Your task to perform on an android device: search for starred emails in the gmail app Image 0: 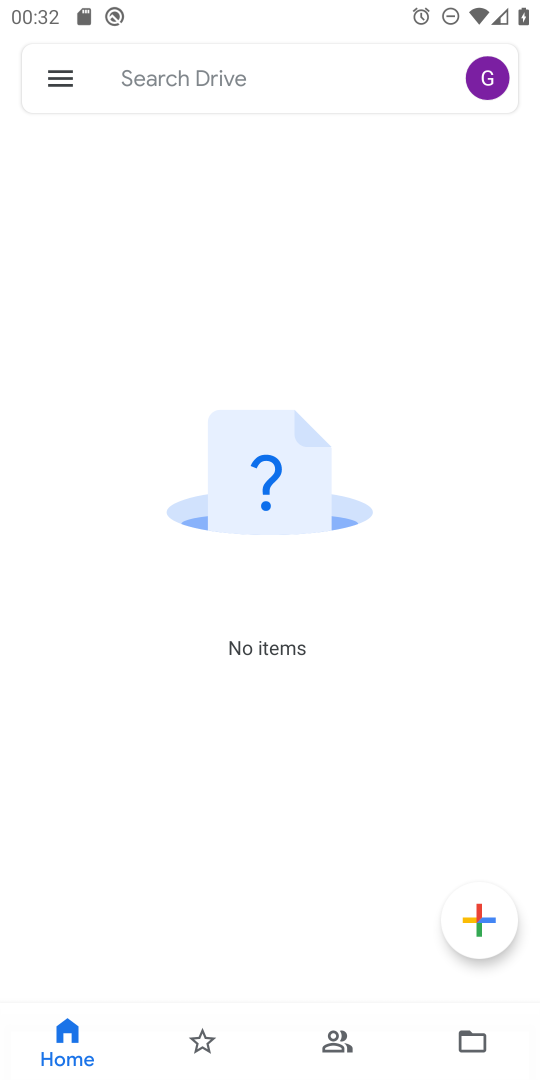
Step 0: press home button
Your task to perform on an android device: search for starred emails in the gmail app Image 1: 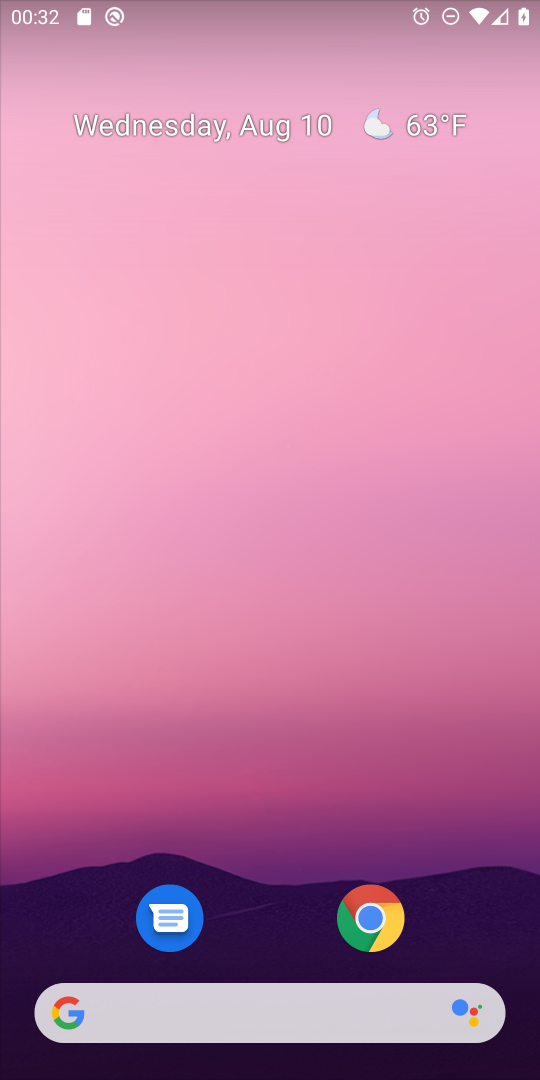
Step 1: drag from (276, 941) to (266, 289)
Your task to perform on an android device: search for starred emails in the gmail app Image 2: 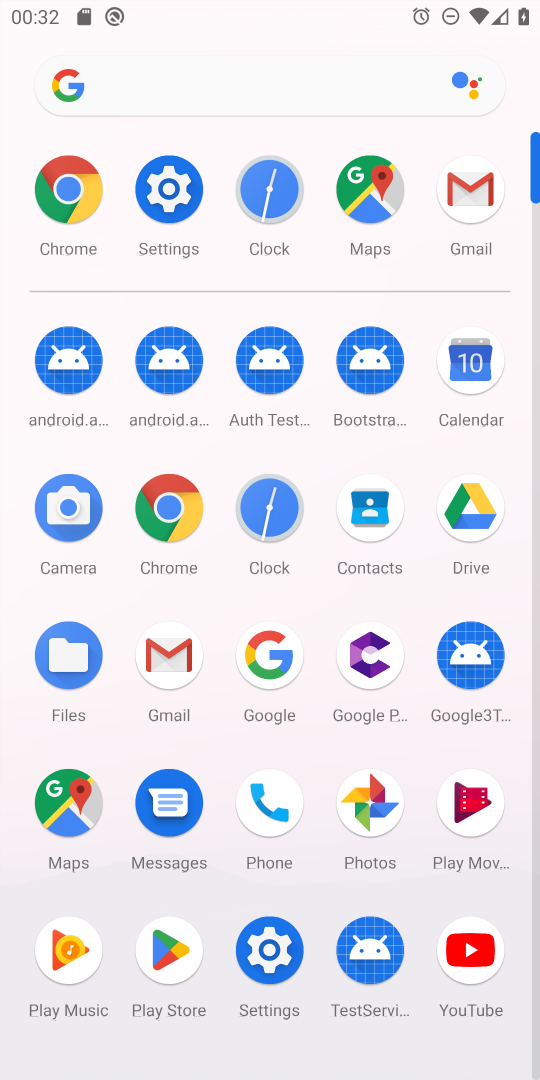
Step 2: click (174, 658)
Your task to perform on an android device: search for starred emails in the gmail app Image 3: 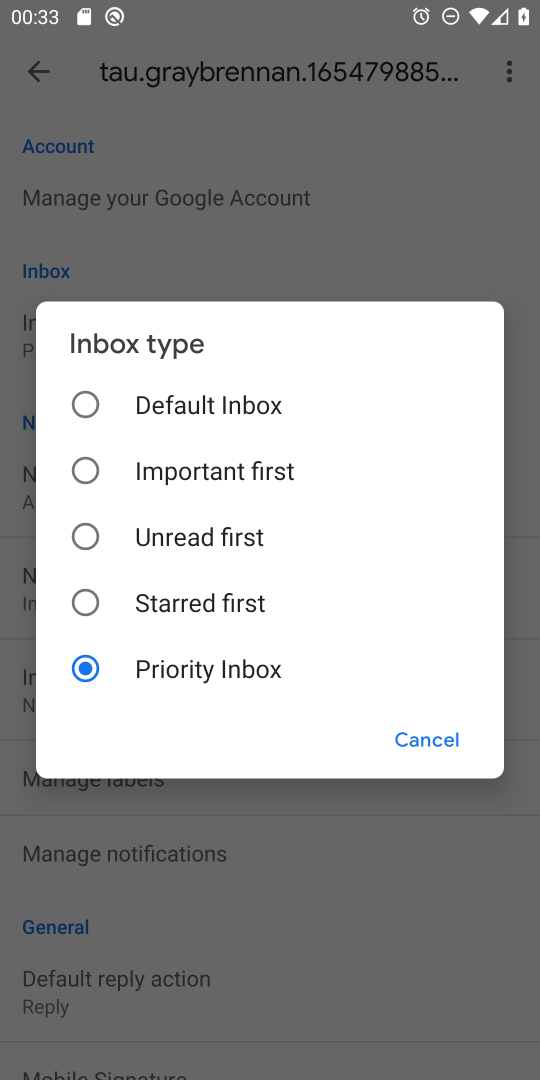
Step 3: click (425, 731)
Your task to perform on an android device: search for starred emails in the gmail app Image 4: 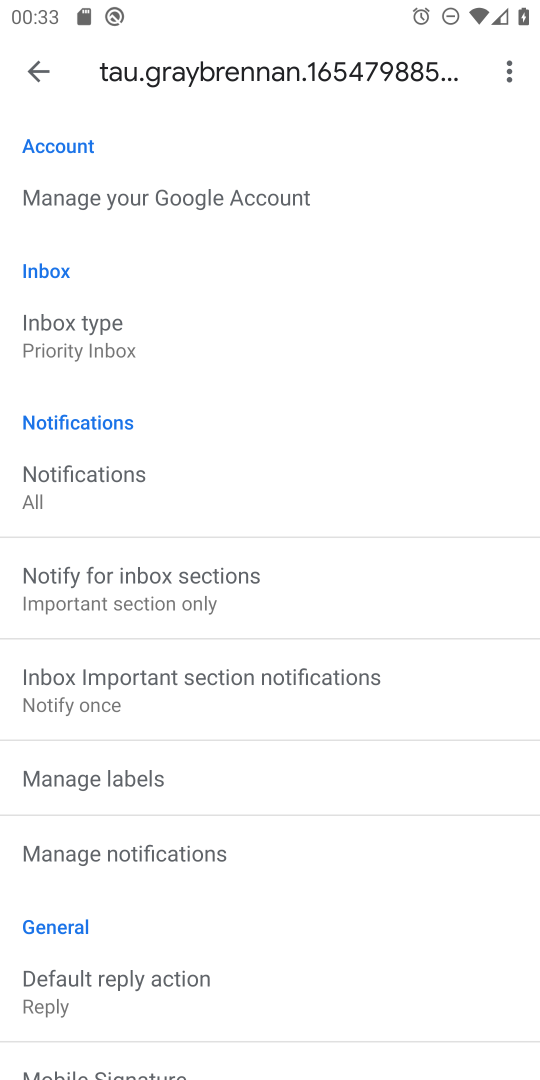
Step 4: click (46, 75)
Your task to perform on an android device: search for starred emails in the gmail app Image 5: 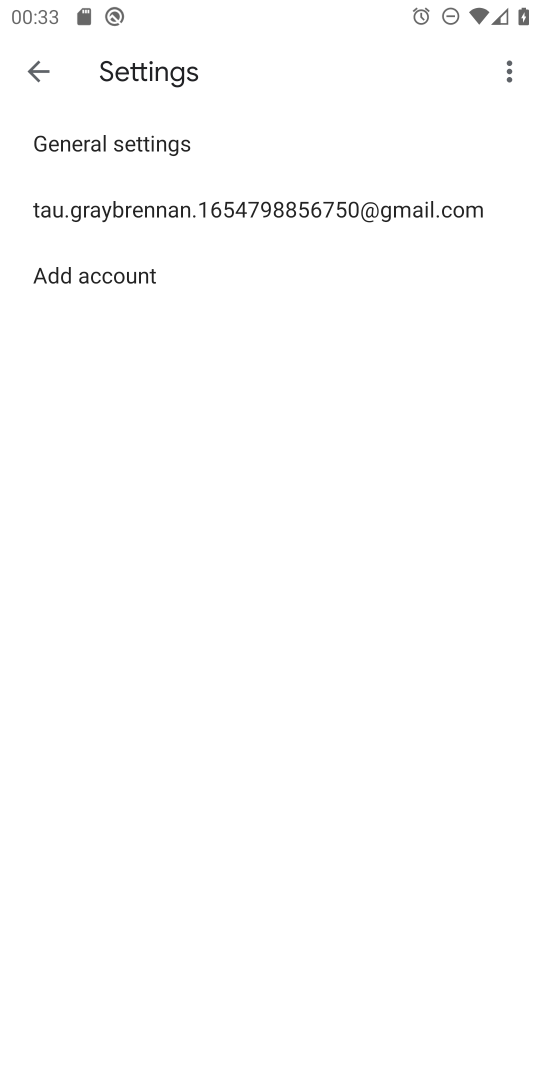
Step 5: click (37, 61)
Your task to perform on an android device: search for starred emails in the gmail app Image 6: 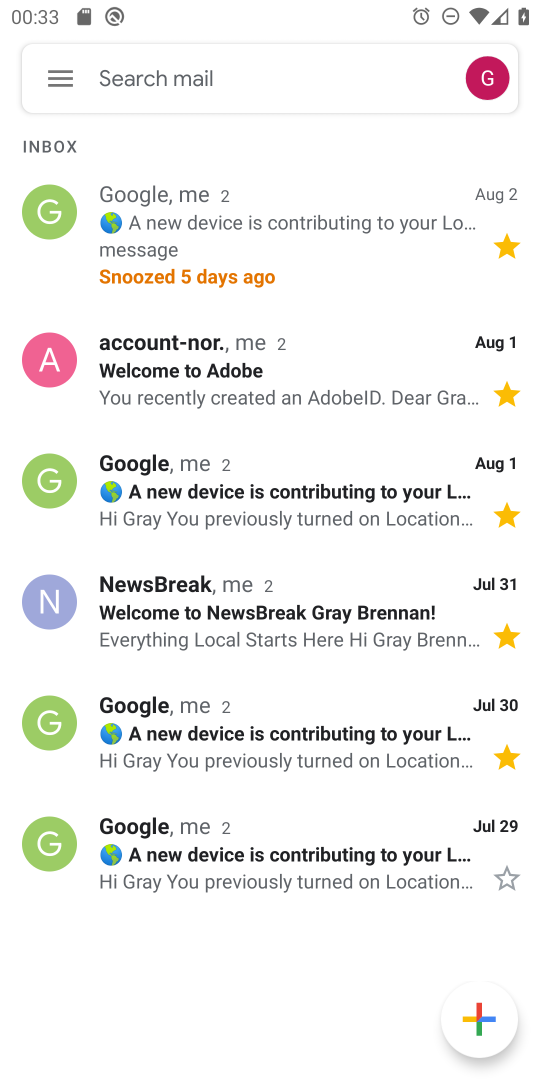
Step 6: click (37, 61)
Your task to perform on an android device: search for starred emails in the gmail app Image 7: 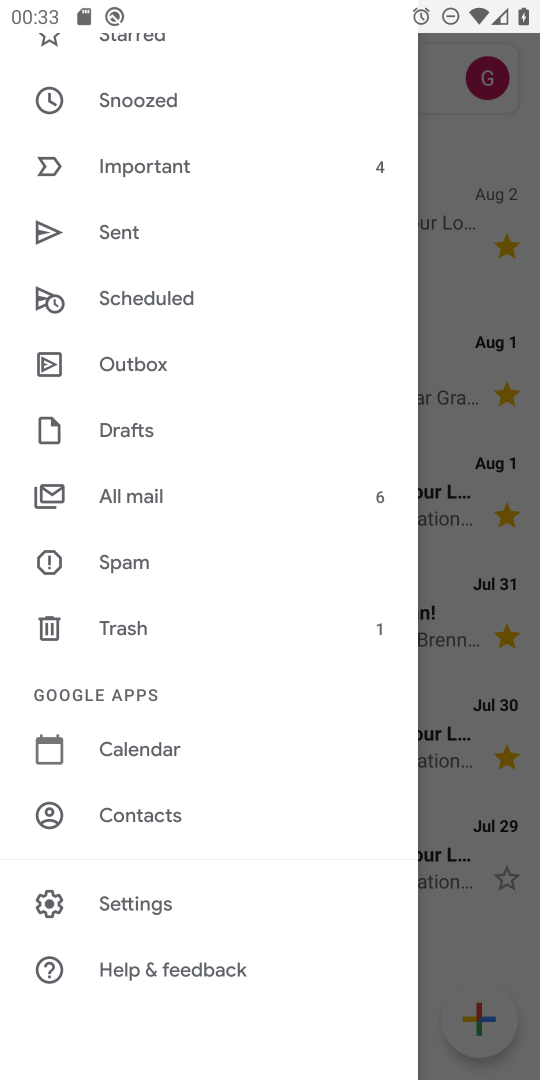
Step 7: drag from (184, 200) to (196, 742)
Your task to perform on an android device: search for starred emails in the gmail app Image 8: 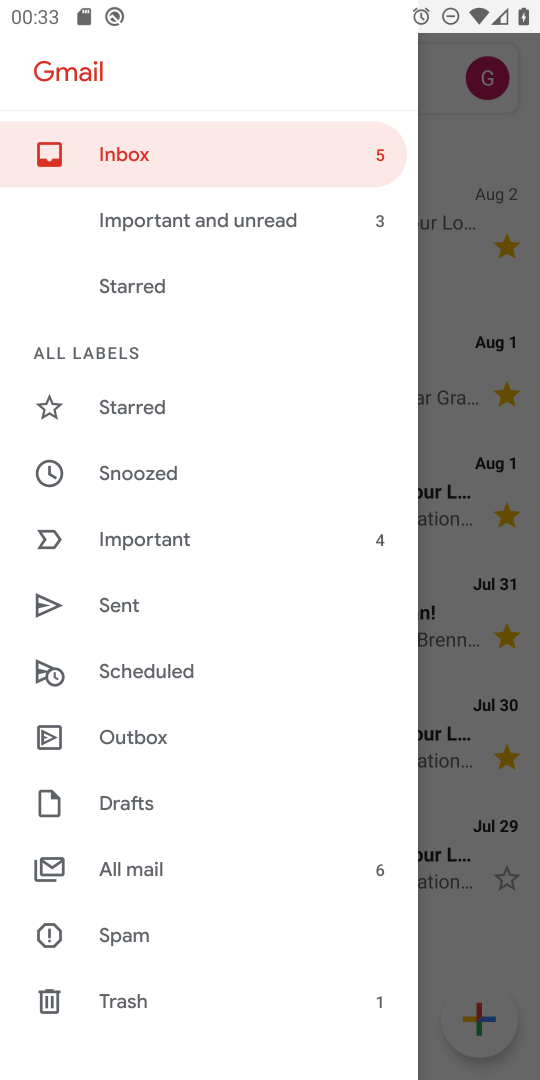
Step 8: click (145, 412)
Your task to perform on an android device: search for starred emails in the gmail app Image 9: 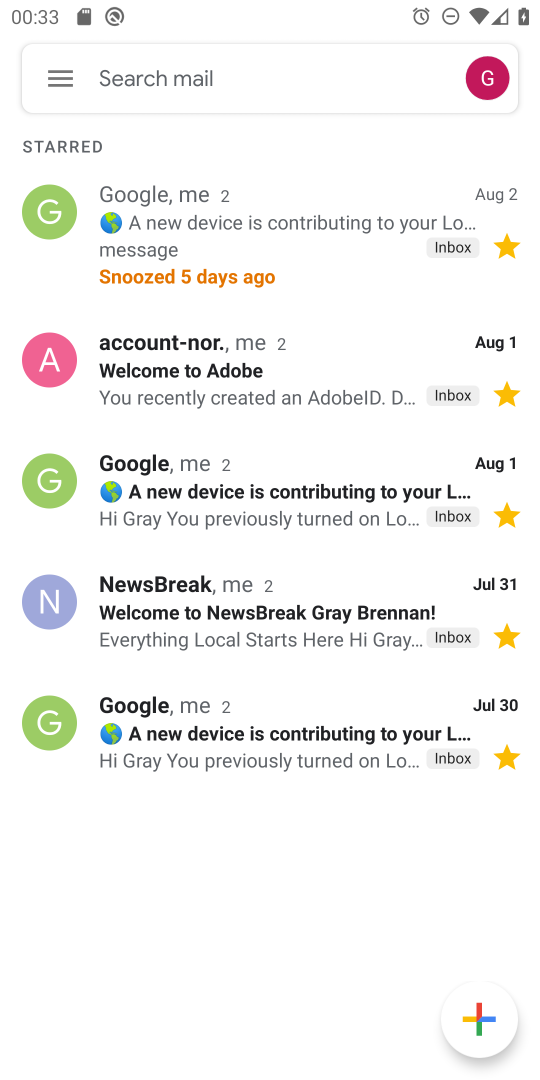
Step 9: task complete